Your task to perform on an android device: turn off location history Image 0: 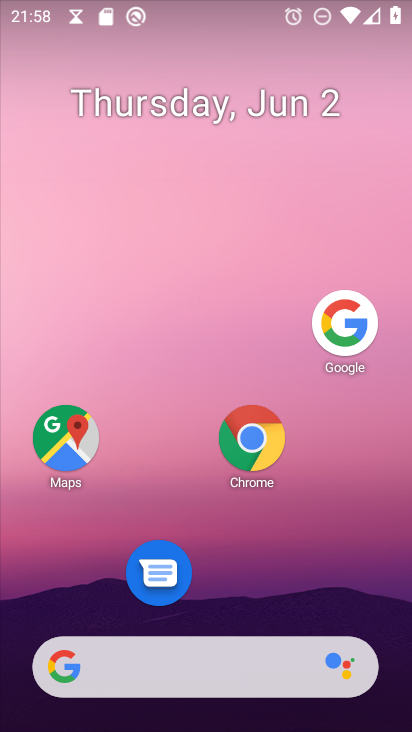
Step 0: click (257, 437)
Your task to perform on an android device: turn off location history Image 1: 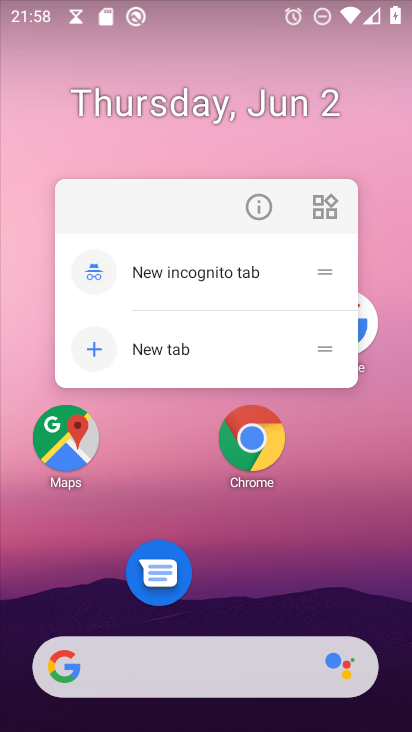
Step 1: click (78, 449)
Your task to perform on an android device: turn off location history Image 2: 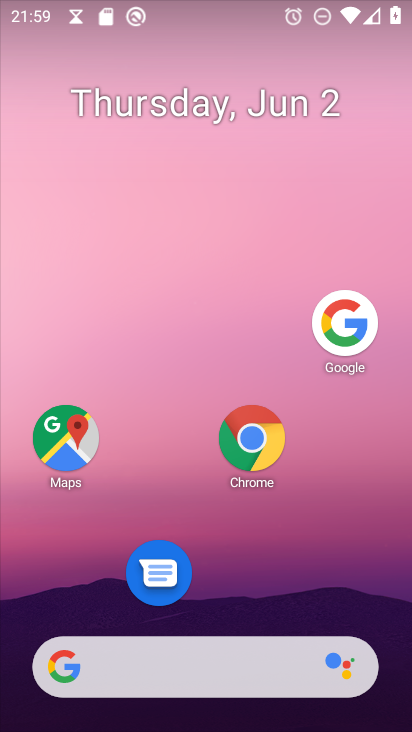
Step 2: click (58, 441)
Your task to perform on an android device: turn off location history Image 3: 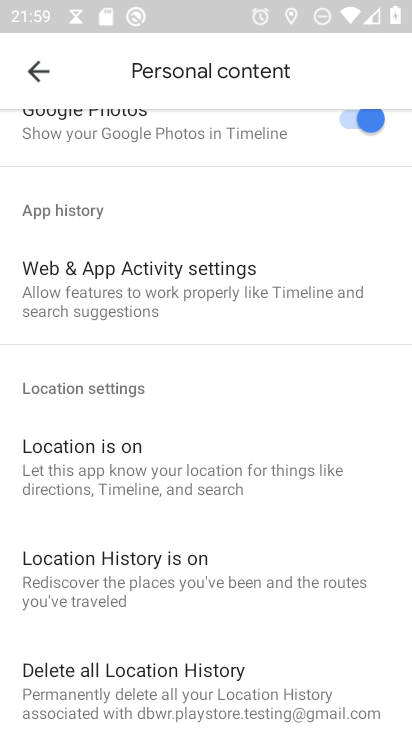
Step 3: click (182, 572)
Your task to perform on an android device: turn off location history Image 4: 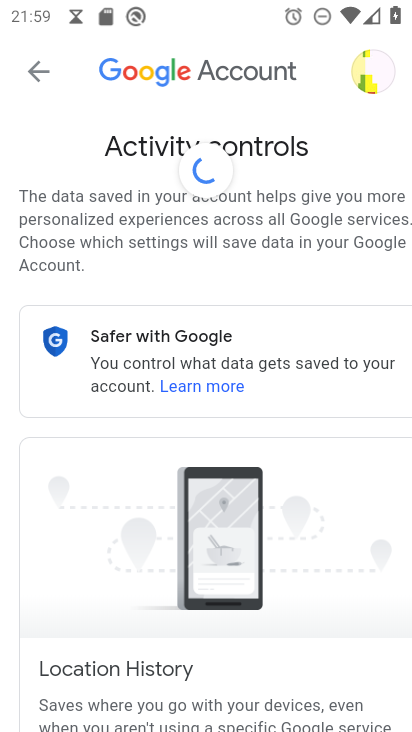
Step 4: task complete